Your task to perform on an android device: set default search engine in the chrome app Image 0: 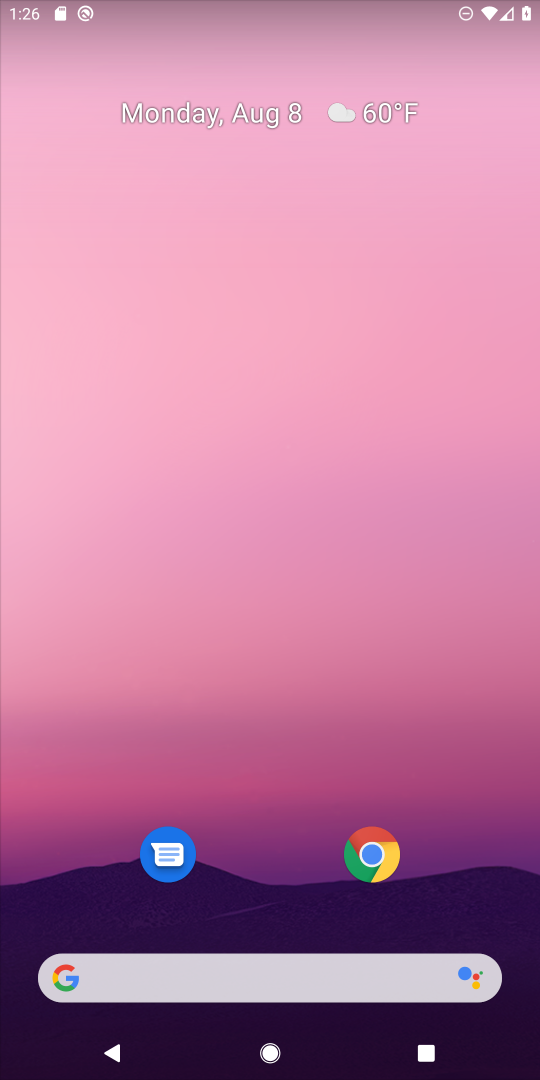
Step 0: press home button
Your task to perform on an android device: set default search engine in the chrome app Image 1: 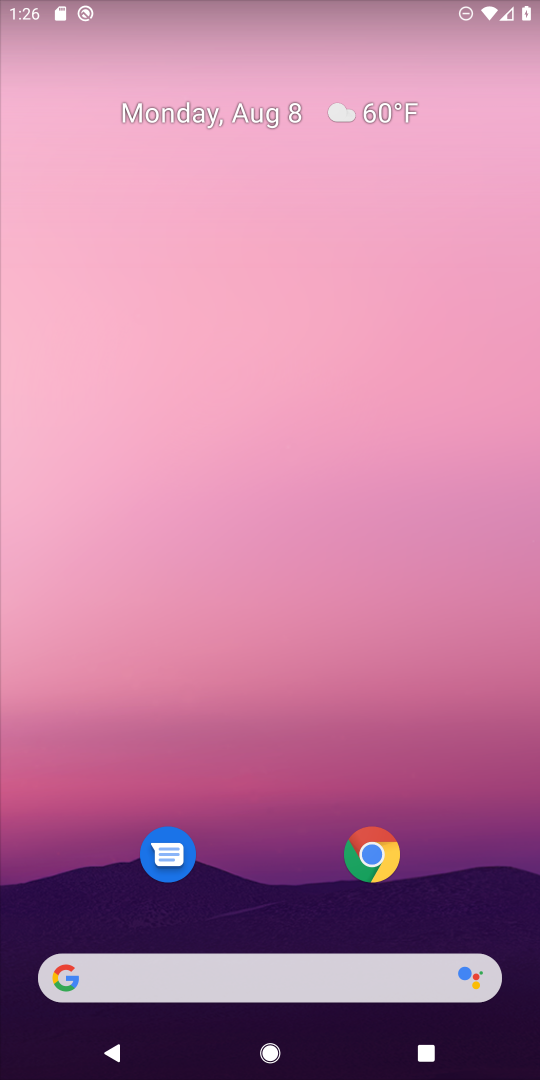
Step 1: click (386, 853)
Your task to perform on an android device: set default search engine in the chrome app Image 2: 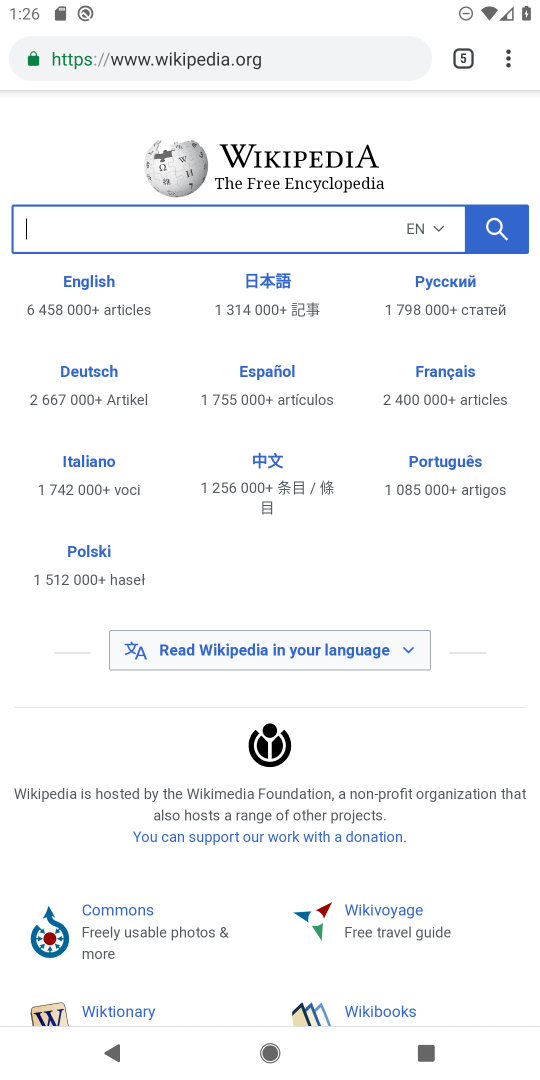
Step 2: drag from (509, 42) to (312, 771)
Your task to perform on an android device: set default search engine in the chrome app Image 3: 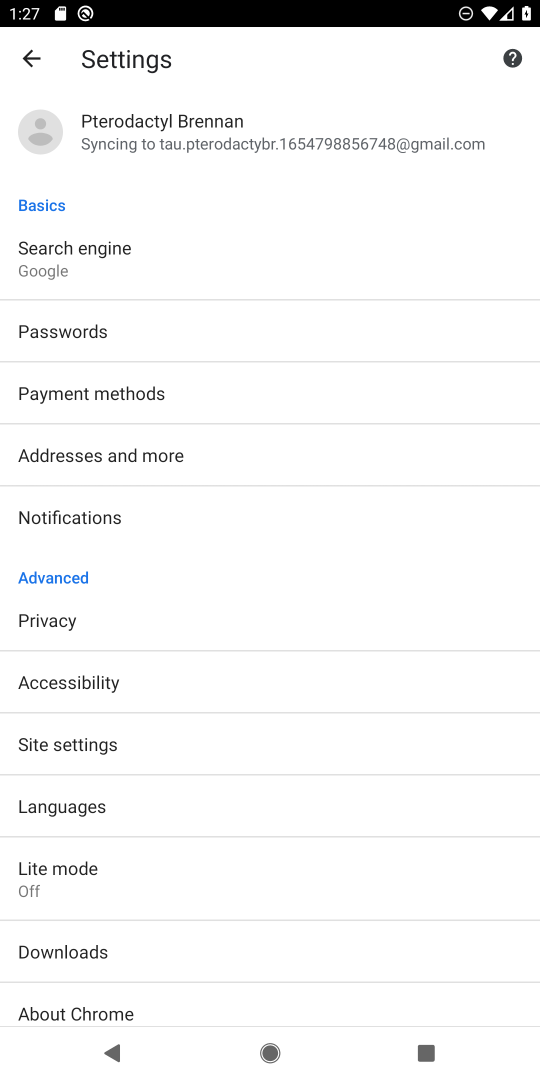
Step 3: click (60, 261)
Your task to perform on an android device: set default search engine in the chrome app Image 4: 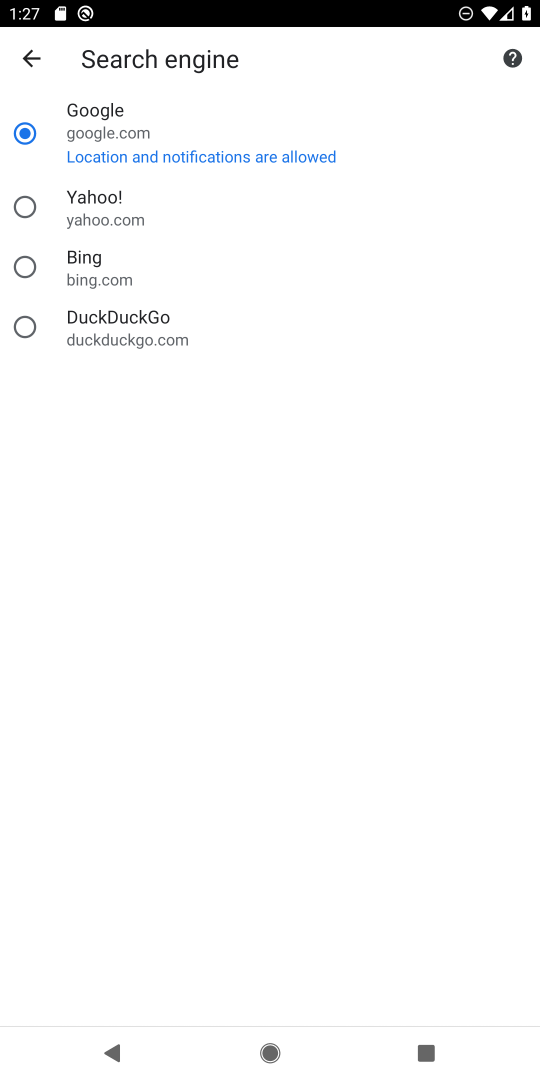
Step 4: task complete